Your task to perform on an android device: Open the calendar app, open the side menu, and click the "Day" option Image 0: 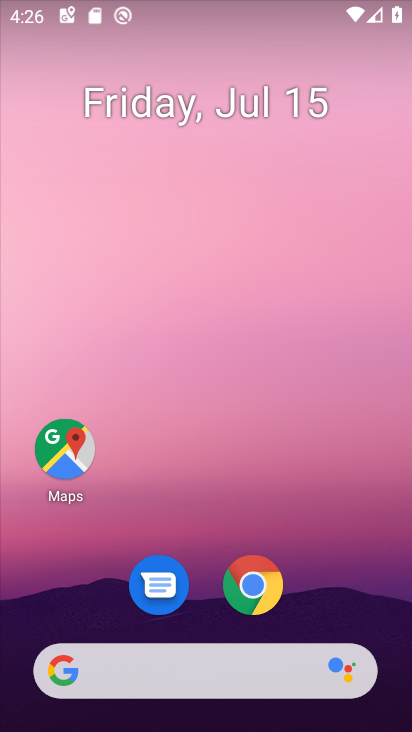
Step 0: drag from (285, 482) to (252, 99)
Your task to perform on an android device: Open the calendar app, open the side menu, and click the "Day" option Image 1: 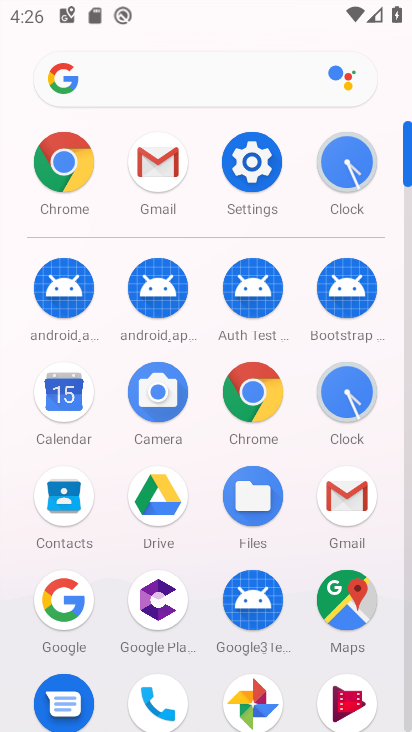
Step 1: click (69, 387)
Your task to perform on an android device: Open the calendar app, open the side menu, and click the "Day" option Image 2: 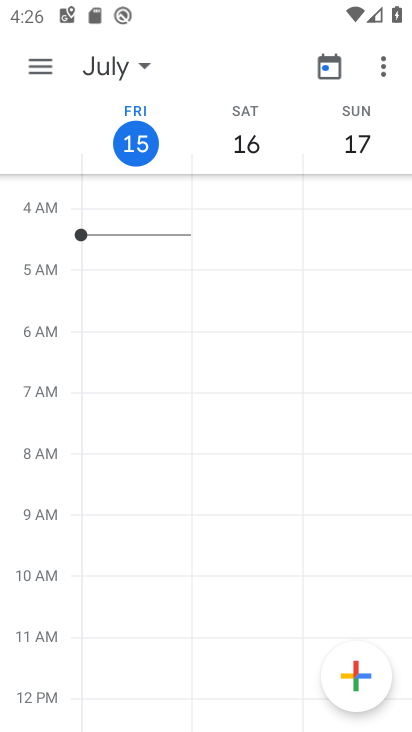
Step 2: click (38, 59)
Your task to perform on an android device: Open the calendar app, open the side menu, and click the "Day" option Image 3: 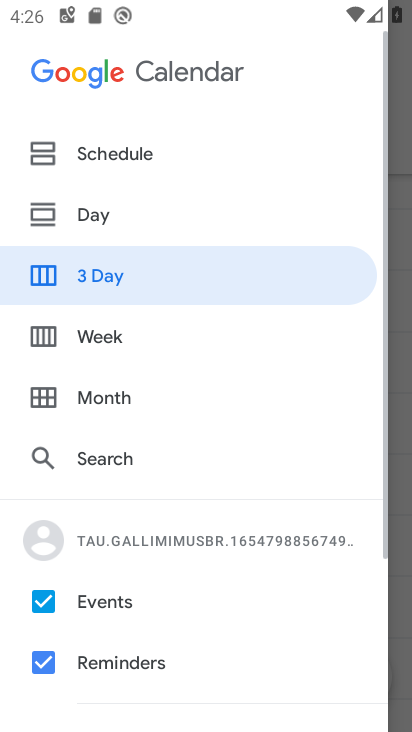
Step 3: click (87, 205)
Your task to perform on an android device: Open the calendar app, open the side menu, and click the "Day" option Image 4: 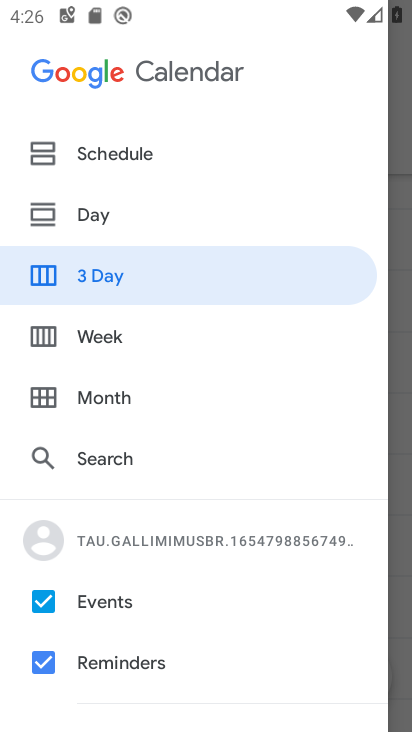
Step 4: click (47, 212)
Your task to perform on an android device: Open the calendar app, open the side menu, and click the "Day" option Image 5: 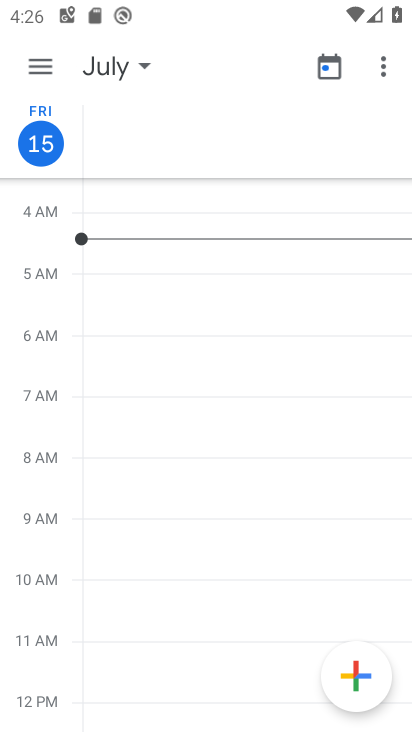
Step 5: task complete